Your task to perform on an android device: turn off location history Image 0: 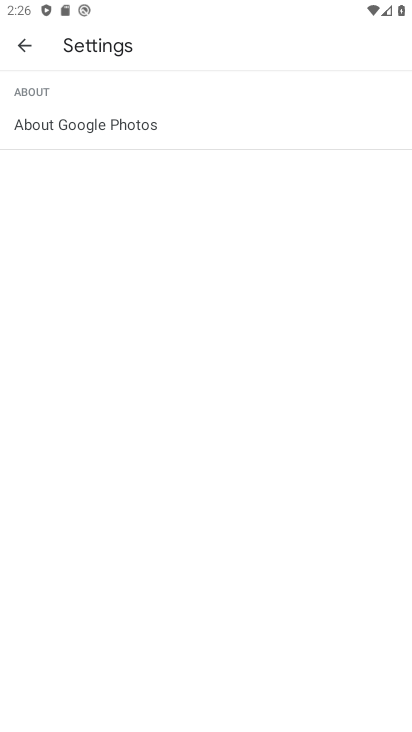
Step 0: press home button
Your task to perform on an android device: turn off location history Image 1: 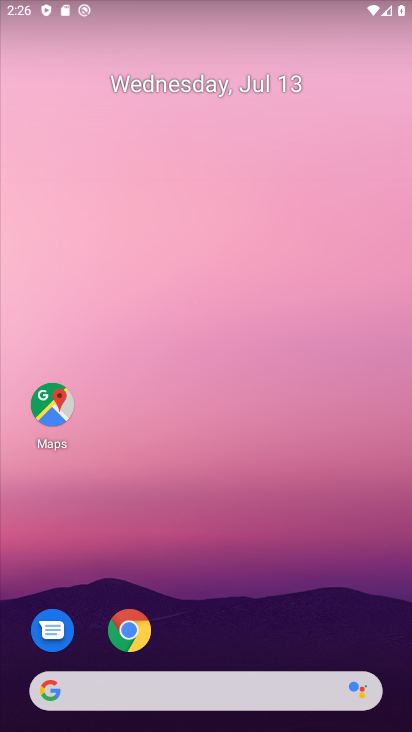
Step 1: click (52, 402)
Your task to perform on an android device: turn off location history Image 2: 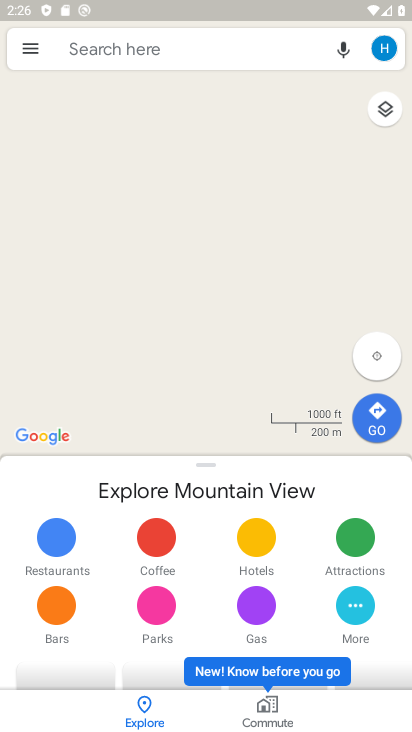
Step 2: click (31, 52)
Your task to perform on an android device: turn off location history Image 3: 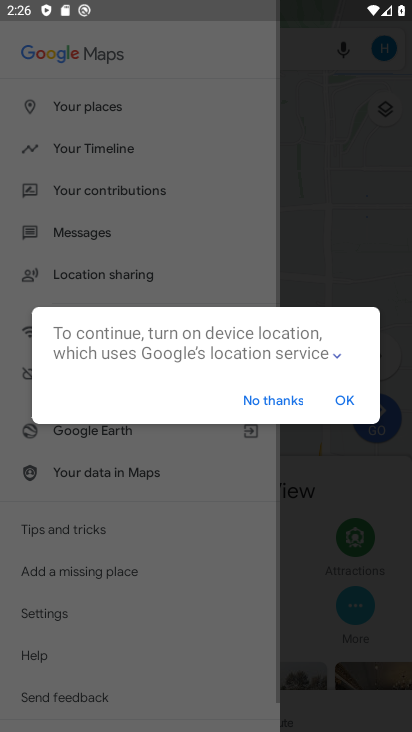
Step 3: click (300, 402)
Your task to perform on an android device: turn off location history Image 4: 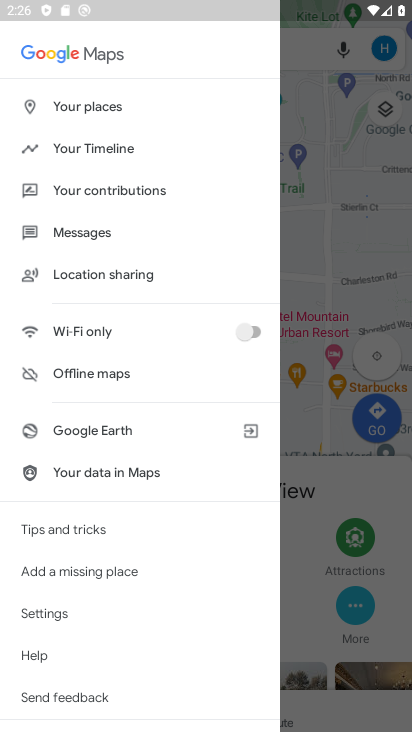
Step 4: click (133, 148)
Your task to perform on an android device: turn off location history Image 5: 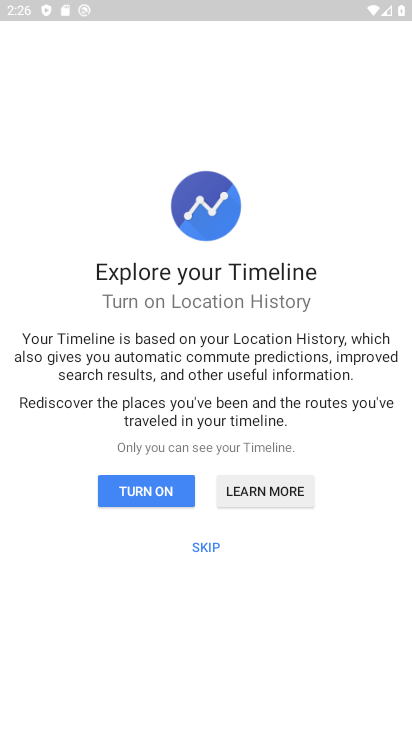
Step 5: click (208, 548)
Your task to perform on an android device: turn off location history Image 6: 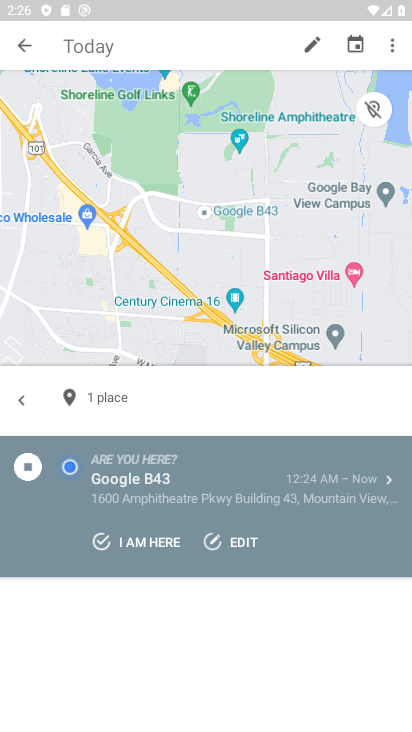
Step 6: click (391, 53)
Your task to perform on an android device: turn off location history Image 7: 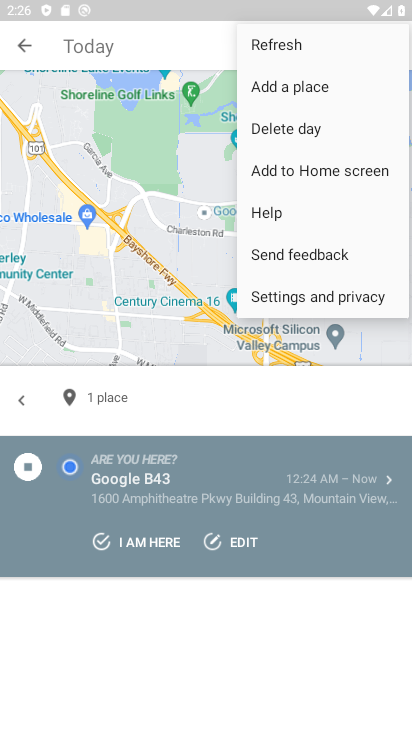
Step 7: click (360, 295)
Your task to perform on an android device: turn off location history Image 8: 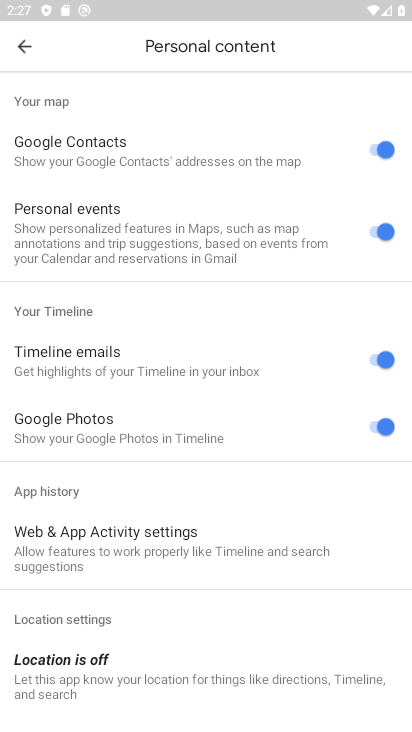
Step 8: drag from (286, 618) to (238, 178)
Your task to perform on an android device: turn off location history Image 9: 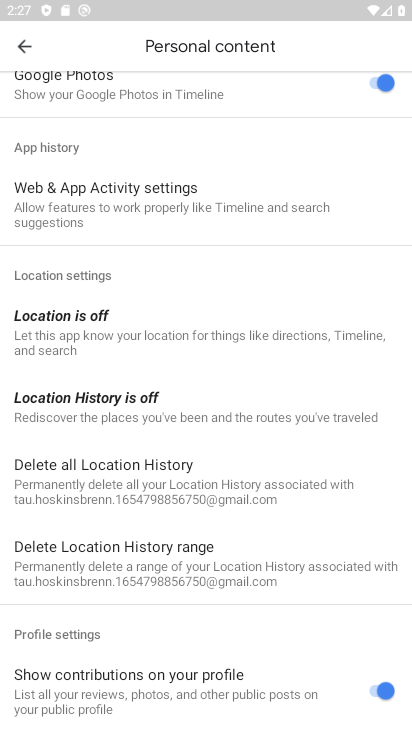
Step 9: click (253, 412)
Your task to perform on an android device: turn off location history Image 10: 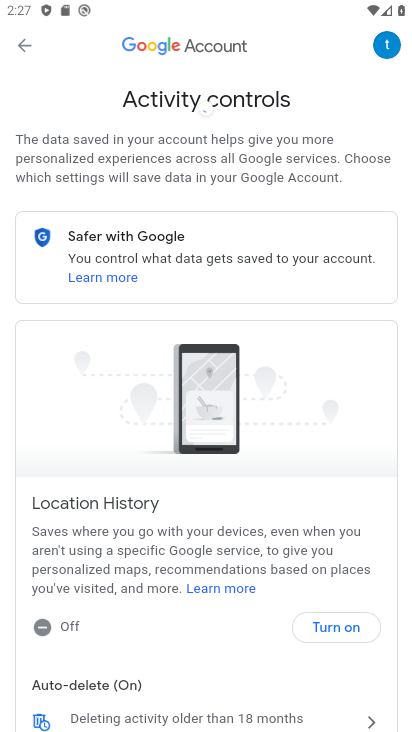
Step 10: task complete